Your task to perform on an android device: change the upload size in google photos Image 0: 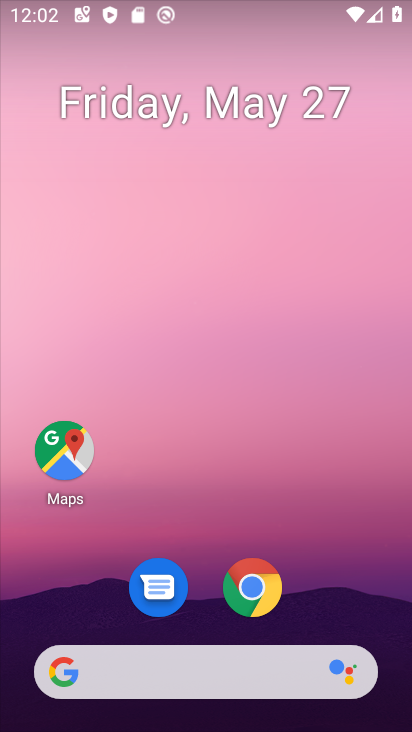
Step 0: drag from (116, 728) to (202, 87)
Your task to perform on an android device: change the upload size in google photos Image 1: 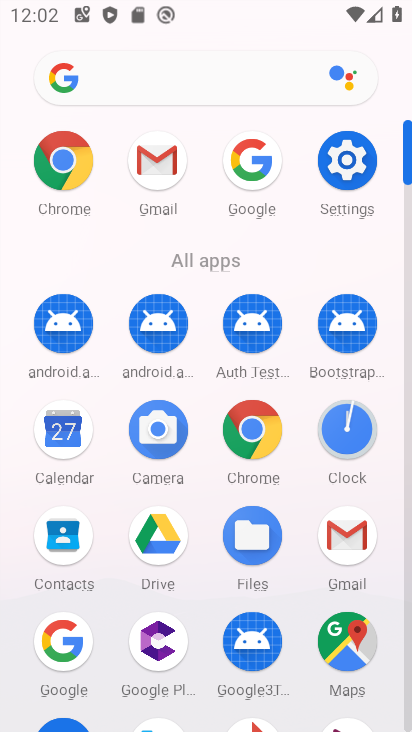
Step 1: drag from (211, 589) to (200, 292)
Your task to perform on an android device: change the upload size in google photos Image 2: 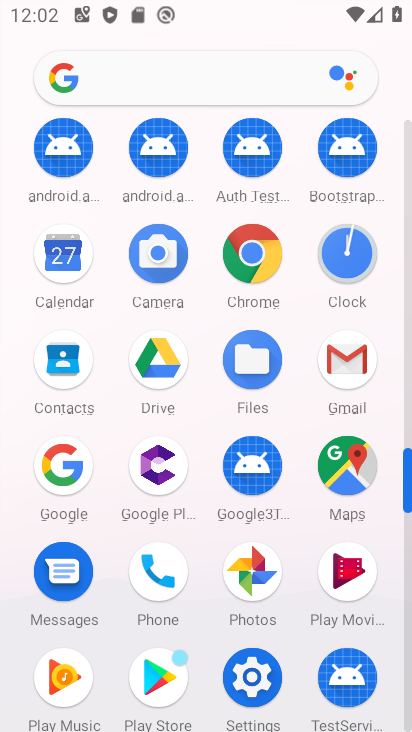
Step 2: click (257, 584)
Your task to perform on an android device: change the upload size in google photos Image 3: 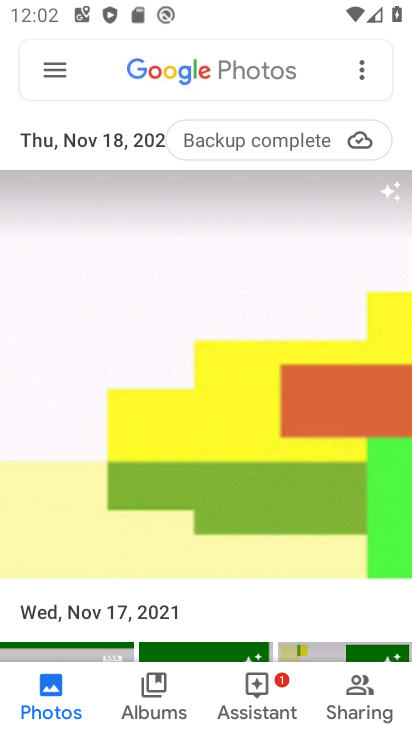
Step 3: click (67, 66)
Your task to perform on an android device: change the upload size in google photos Image 4: 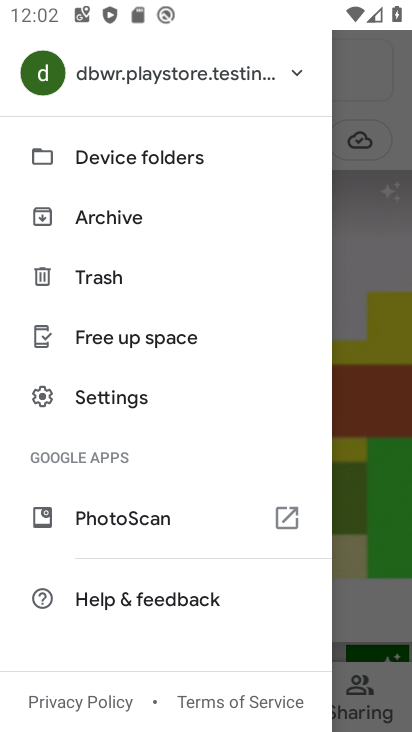
Step 4: click (101, 407)
Your task to perform on an android device: change the upload size in google photos Image 5: 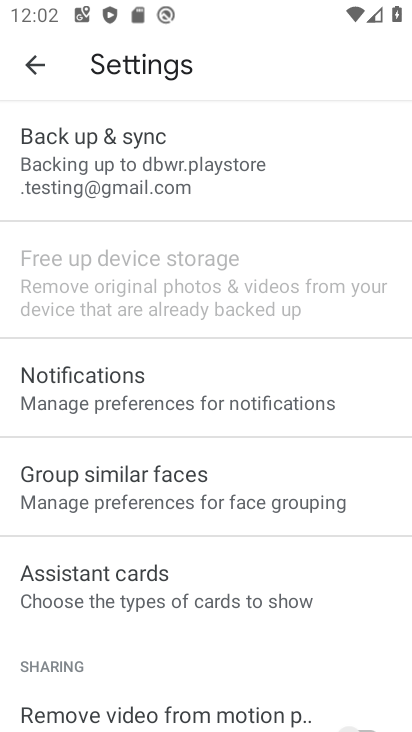
Step 5: click (263, 173)
Your task to perform on an android device: change the upload size in google photos Image 6: 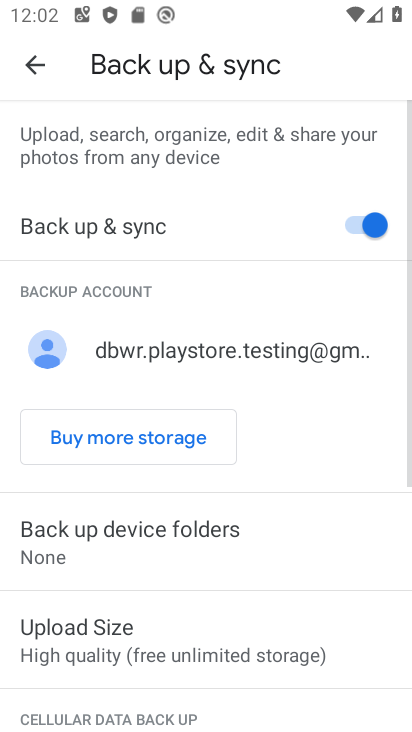
Step 6: click (147, 640)
Your task to perform on an android device: change the upload size in google photos Image 7: 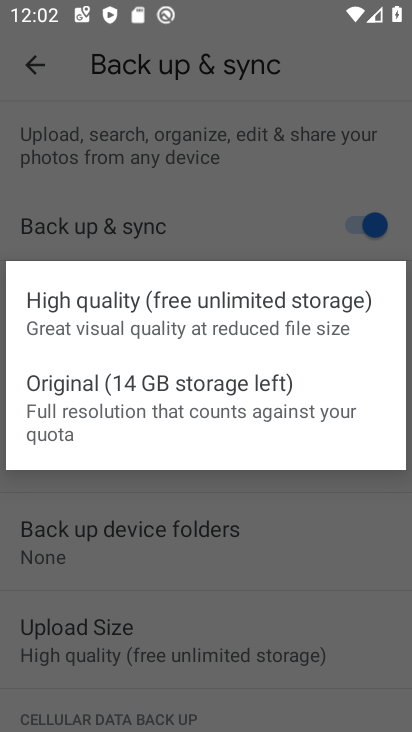
Step 7: click (120, 408)
Your task to perform on an android device: change the upload size in google photos Image 8: 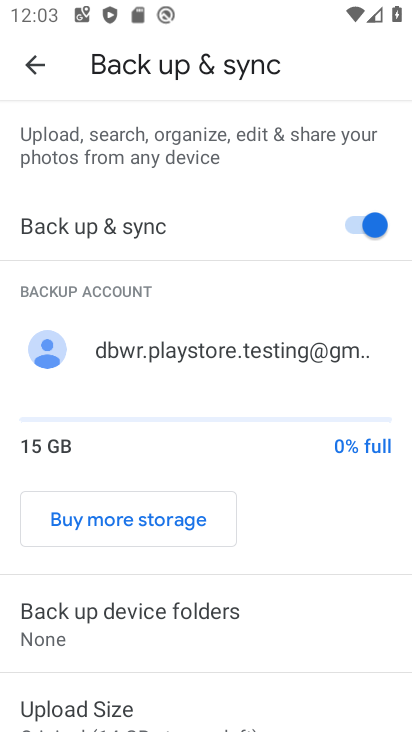
Step 8: task complete